Your task to perform on an android device: clear history in the chrome app Image 0: 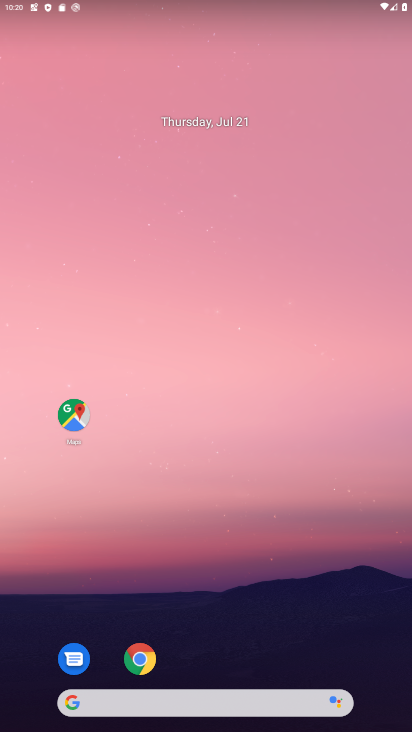
Step 0: drag from (258, 486) to (233, 134)
Your task to perform on an android device: clear history in the chrome app Image 1: 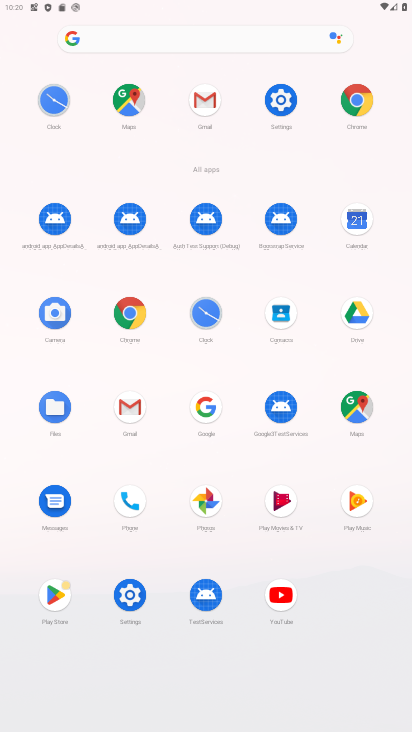
Step 1: click (126, 307)
Your task to perform on an android device: clear history in the chrome app Image 2: 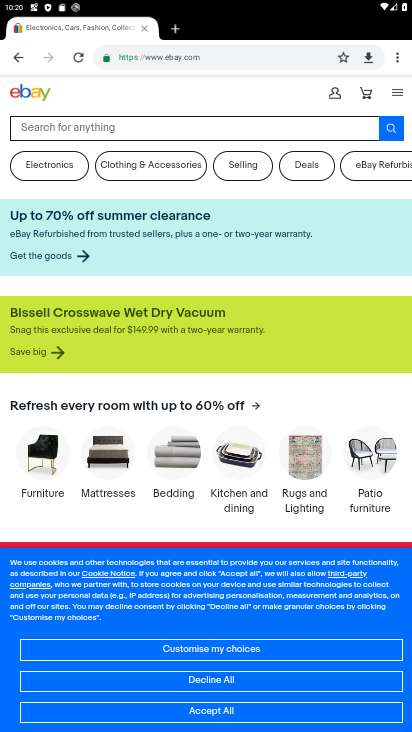
Step 2: drag from (402, 47) to (282, 180)
Your task to perform on an android device: clear history in the chrome app Image 3: 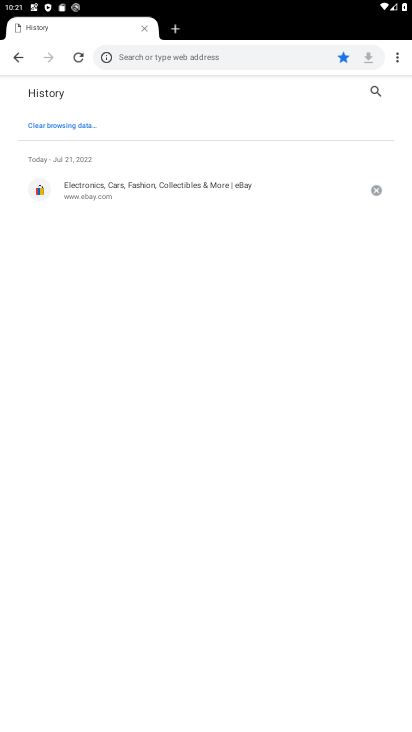
Step 3: click (79, 121)
Your task to perform on an android device: clear history in the chrome app Image 4: 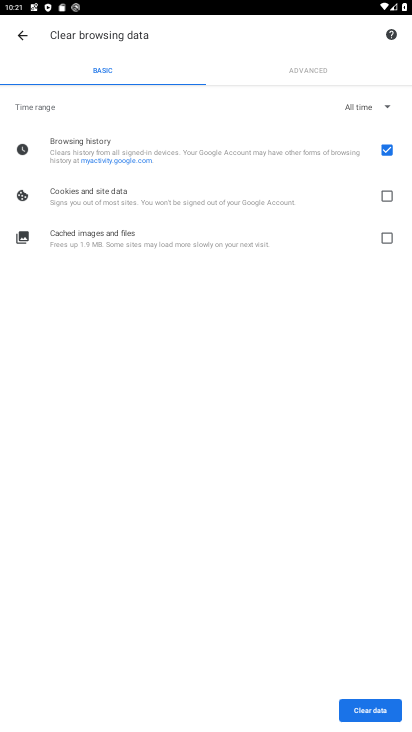
Step 4: click (389, 705)
Your task to perform on an android device: clear history in the chrome app Image 5: 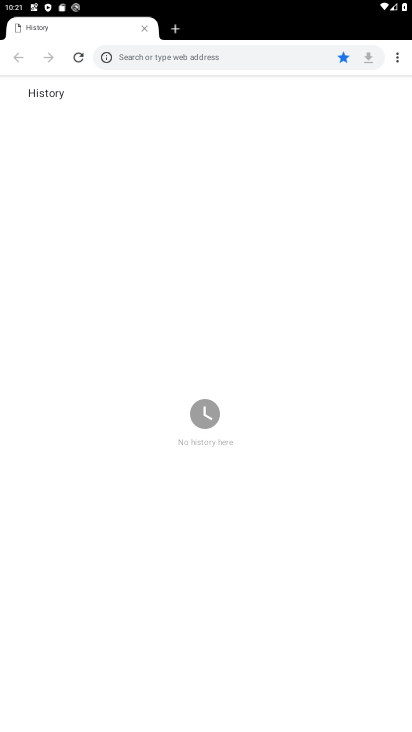
Step 5: task complete